Your task to perform on an android device: turn on improve location accuracy Image 0: 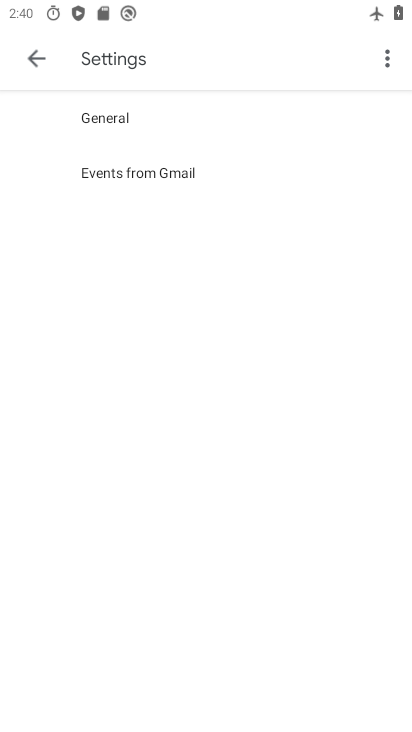
Step 0: press back button
Your task to perform on an android device: turn on improve location accuracy Image 1: 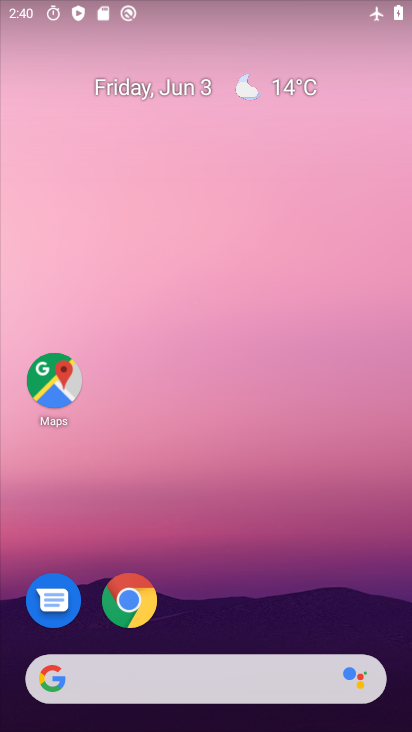
Step 1: drag from (238, 585) to (179, 45)
Your task to perform on an android device: turn on improve location accuracy Image 2: 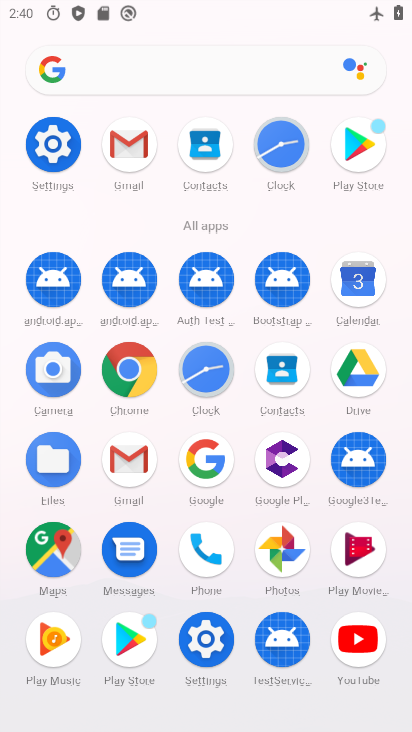
Step 2: click (48, 141)
Your task to perform on an android device: turn on improve location accuracy Image 3: 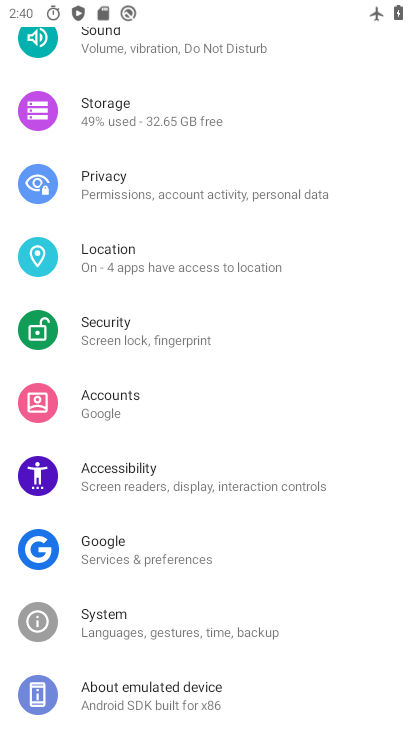
Step 3: drag from (271, 169) to (244, 369)
Your task to perform on an android device: turn on improve location accuracy Image 4: 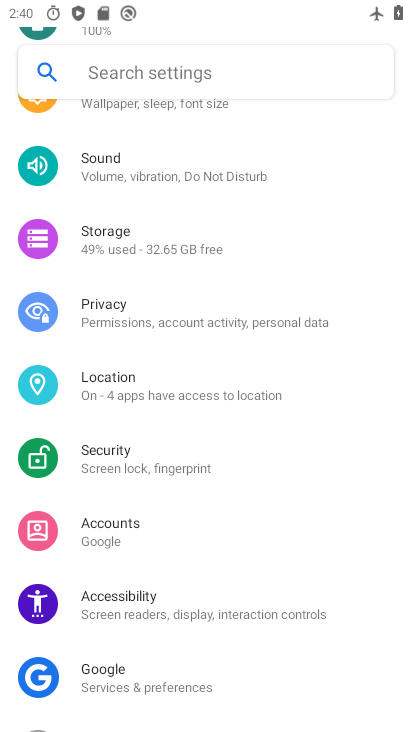
Step 4: click (127, 389)
Your task to perform on an android device: turn on improve location accuracy Image 5: 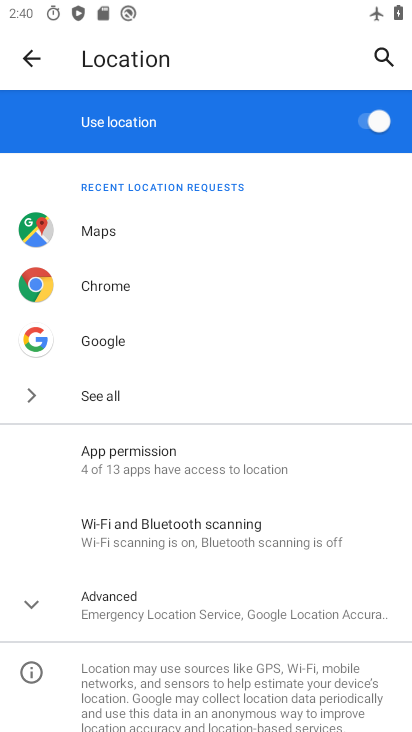
Step 5: click (105, 581)
Your task to perform on an android device: turn on improve location accuracy Image 6: 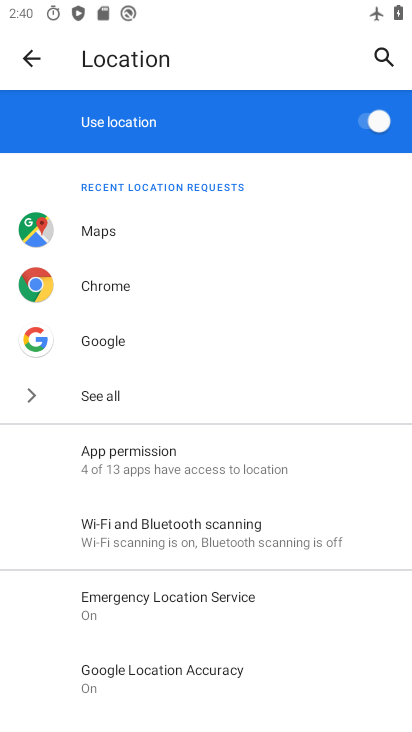
Step 6: drag from (249, 661) to (325, 208)
Your task to perform on an android device: turn on improve location accuracy Image 7: 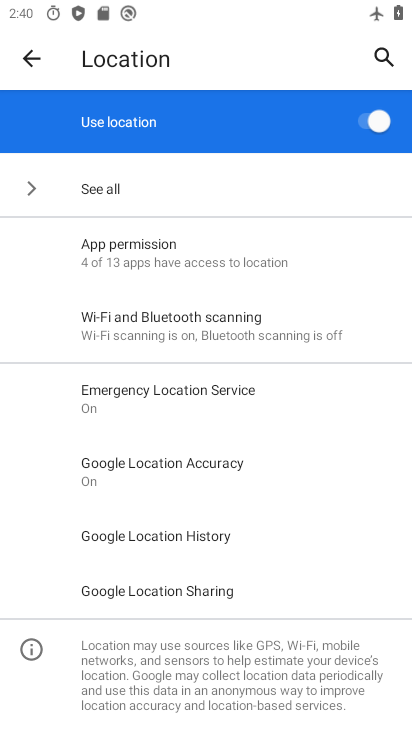
Step 7: click (217, 459)
Your task to perform on an android device: turn on improve location accuracy Image 8: 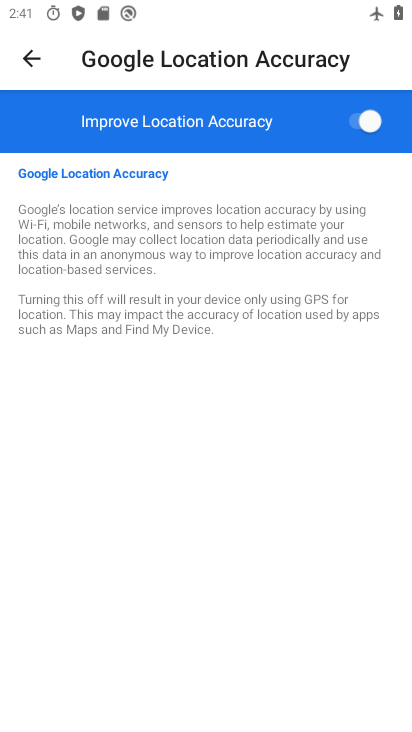
Step 8: task complete